Your task to perform on an android device: add a contact Image 0: 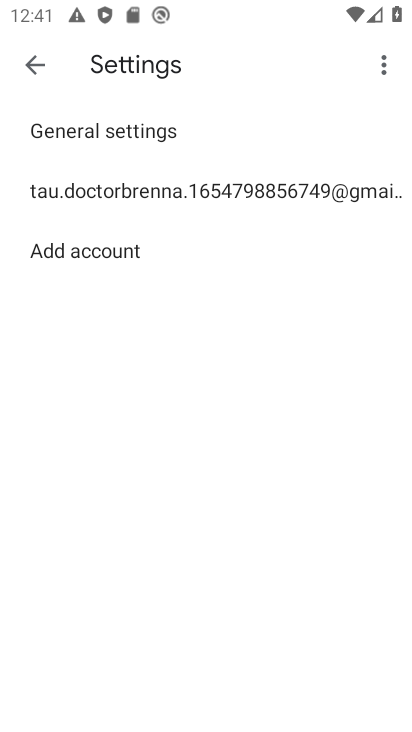
Step 0: press home button
Your task to perform on an android device: add a contact Image 1: 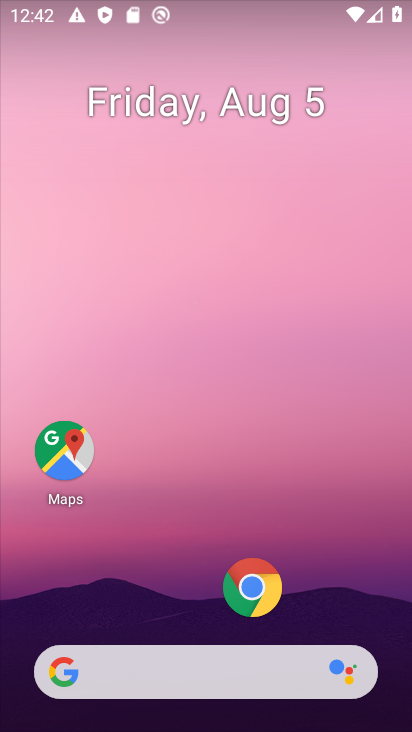
Step 1: drag from (216, 715) to (401, 425)
Your task to perform on an android device: add a contact Image 2: 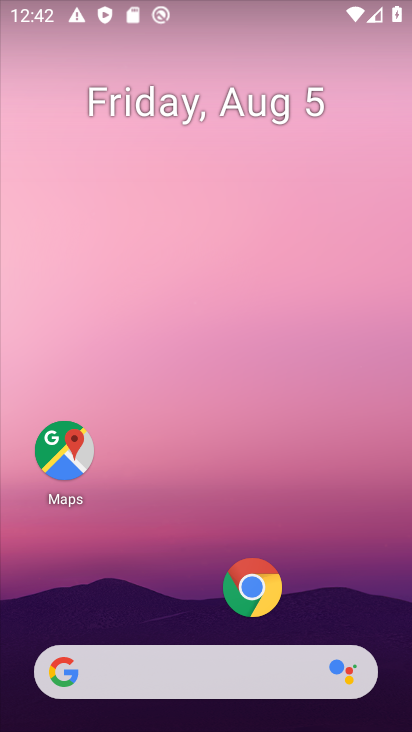
Step 2: drag from (258, 713) to (342, 28)
Your task to perform on an android device: add a contact Image 3: 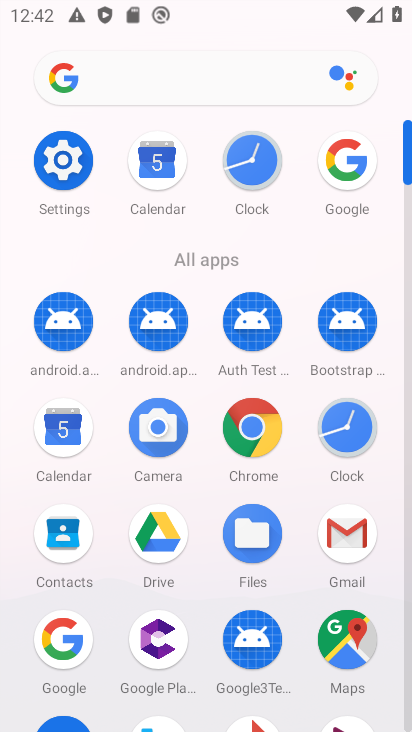
Step 3: click (39, 553)
Your task to perform on an android device: add a contact Image 4: 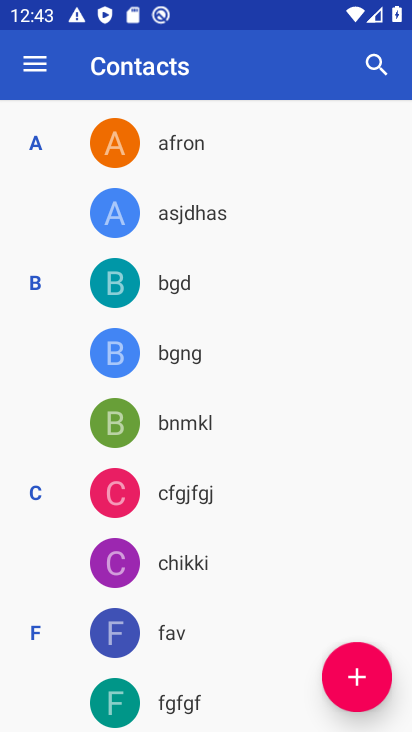
Step 4: click (350, 690)
Your task to perform on an android device: add a contact Image 5: 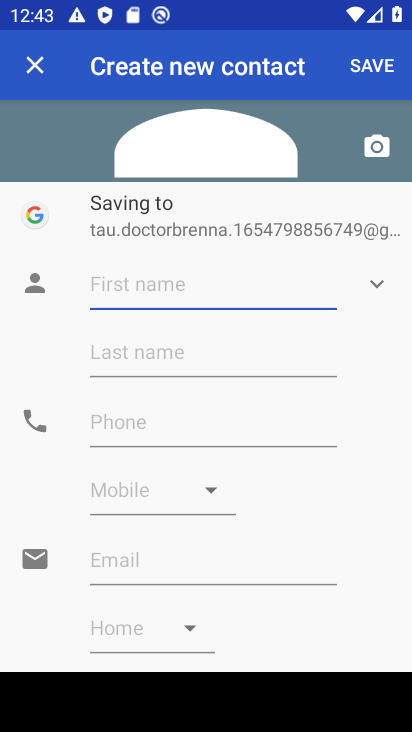
Step 5: type "fgjfj"
Your task to perform on an android device: add a contact Image 6: 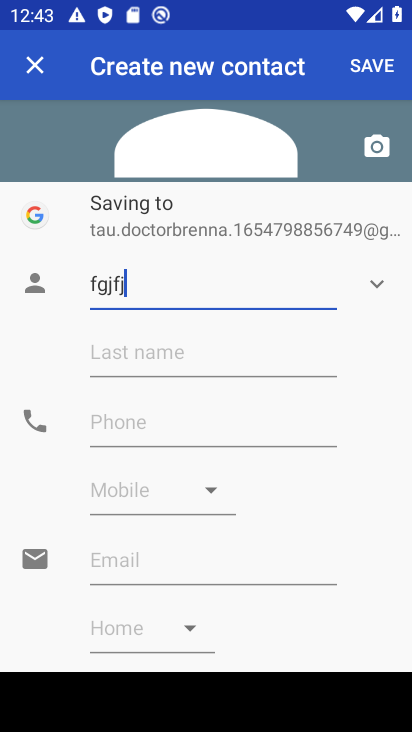
Step 6: click (205, 422)
Your task to perform on an android device: add a contact Image 7: 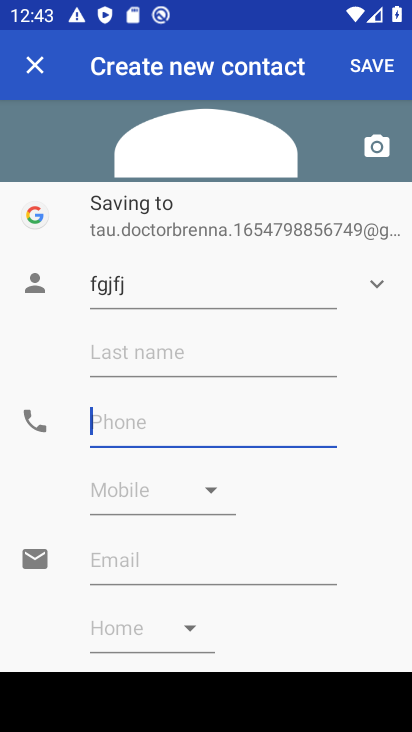
Step 7: type ""
Your task to perform on an android device: add a contact Image 8: 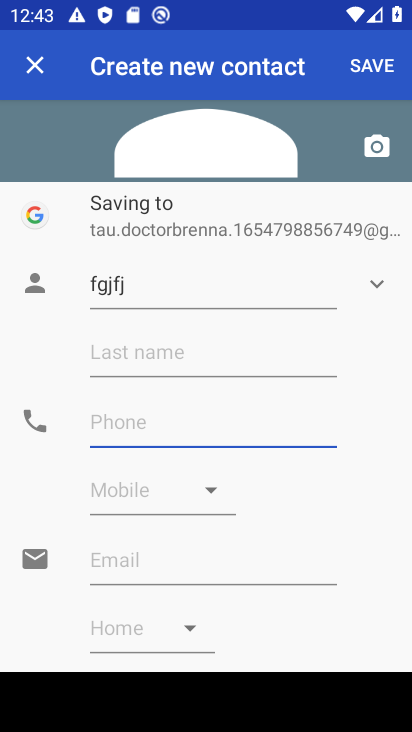
Step 8: type "7868"
Your task to perform on an android device: add a contact Image 9: 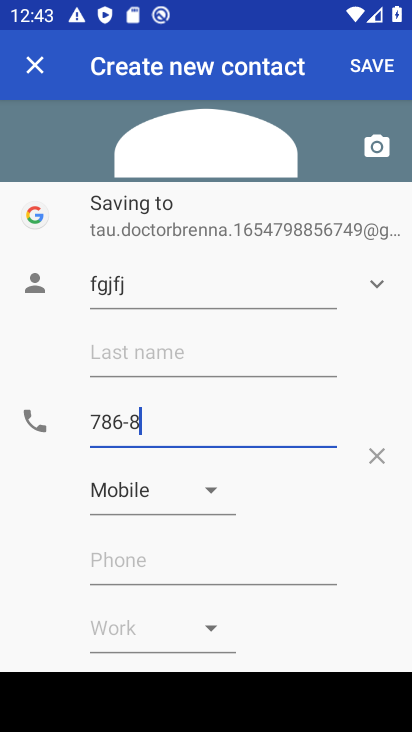
Step 9: task complete